Your task to perform on an android device: Open calendar and show me the third week of next month Image 0: 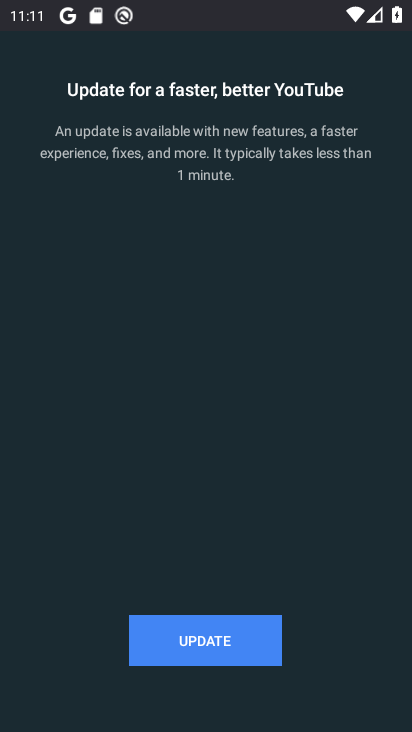
Step 0: press back button
Your task to perform on an android device: Open calendar and show me the third week of next month Image 1: 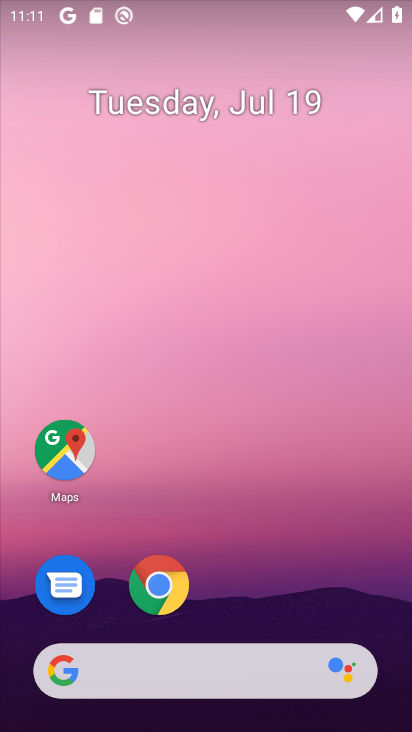
Step 1: drag from (179, 559) to (317, 111)
Your task to perform on an android device: Open calendar and show me the third week of next month Image 2: 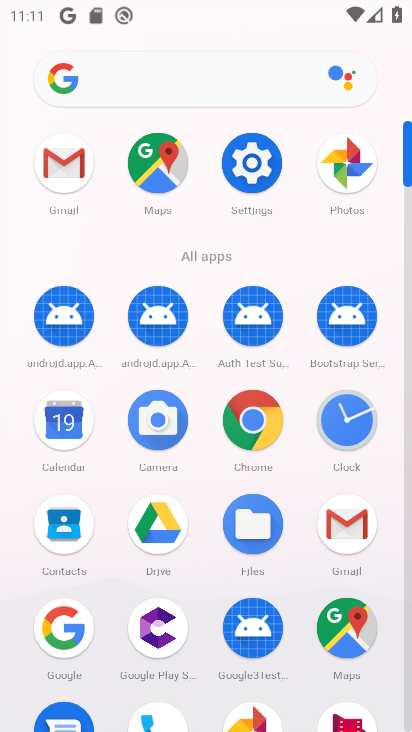
Step 2: click (71, 424)
Your task to perform on an android device: Open calendar and show me the third week of next month Image 3: 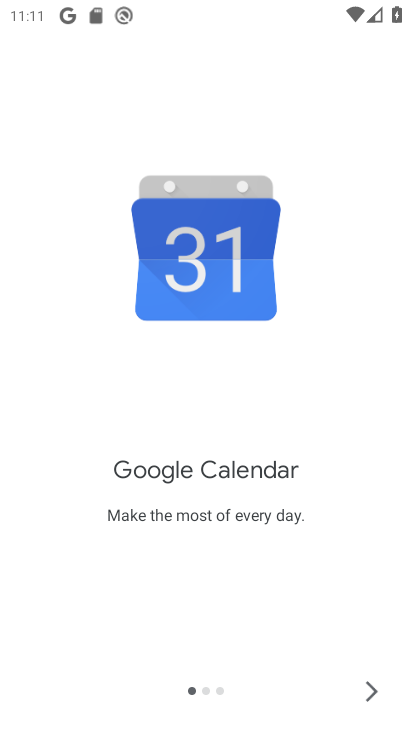
Step 3: click (369, 696)
Your task to perform on an android device: Open calendar and show me the third week of next month Image 4: 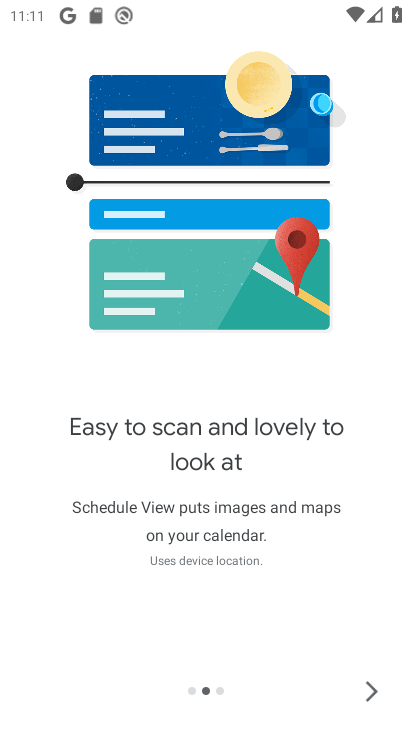
Step 4: click (367, 682)
Your task to perform on an android device: Open calendar and show me the third week of next month Image 5: 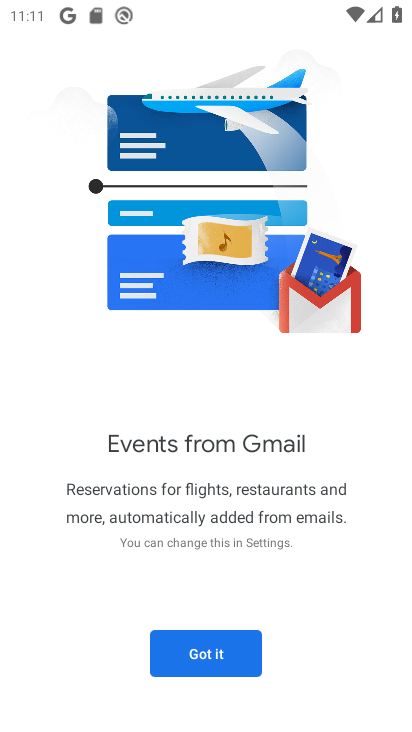
Step 5: click (217, 655)
Your task to perform on an android device: Open calendar and show me the third week of next month Image 6: 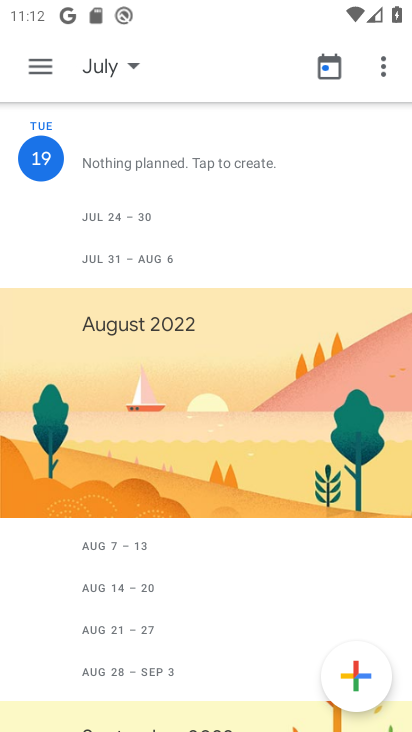
Step 6: click (104, 62)
Your task to perform on an android device: Open calendar and show me the third week of next month Image 7: 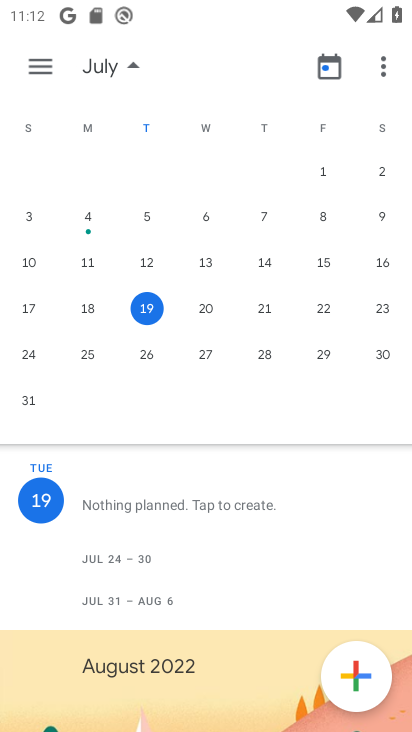
Step 7: click (39, 266)
Your task to perform on an android device: Open calendar and show me the third week of next month Image 8: 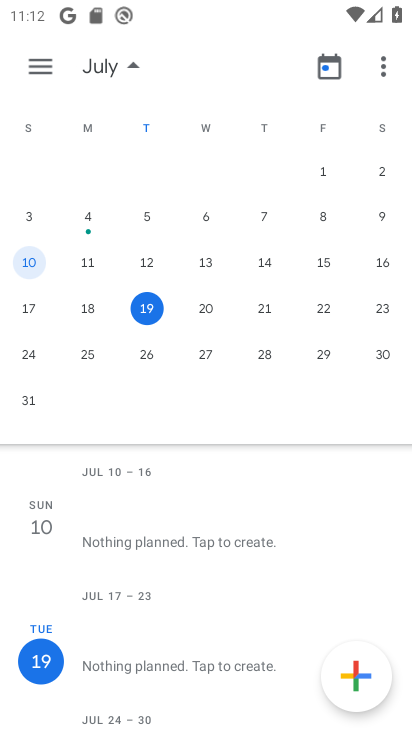
Step 8: drag from (340, 289) to (85, 283)
Your task to perform on an android device: Open calendar and show me the third week of next month Image 9: 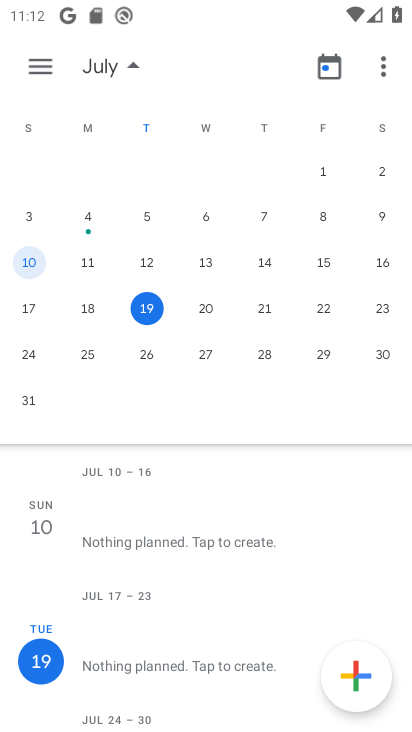
Step 9: drag from (329, 225) to (91, 234)
Your task to perform on an android device: Open calendar and show me the third week of next month Image 10: 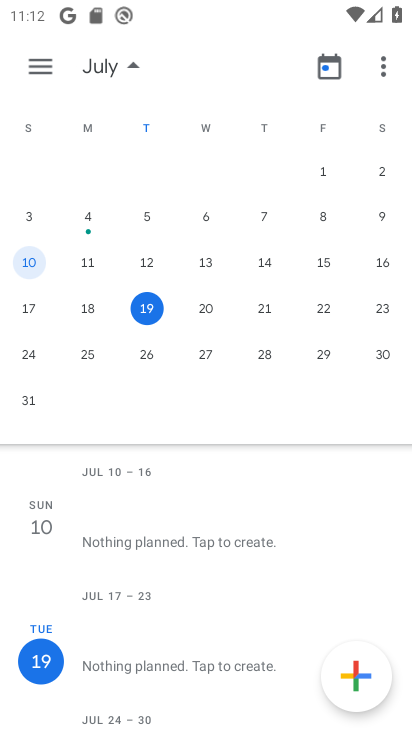
Step 10: drag from (325, 263) to (8, 293)
Your task to perform on an android device: Open calendar and show me the third week of next month Image 11: 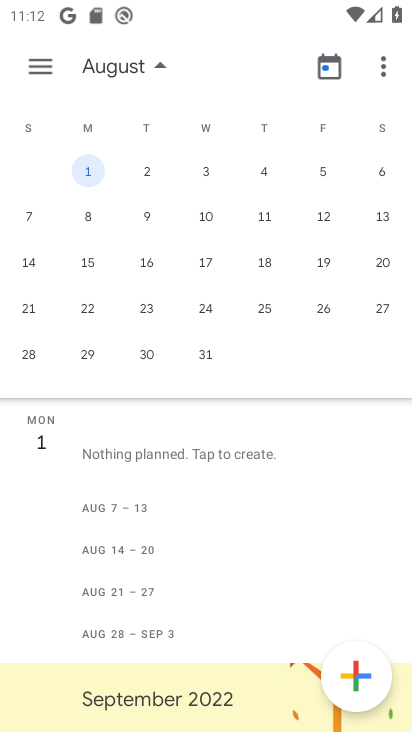
Step 11: click (22, 264)
Your task to perform on an android device: Open calendar and show me the third week of next month Image 12: 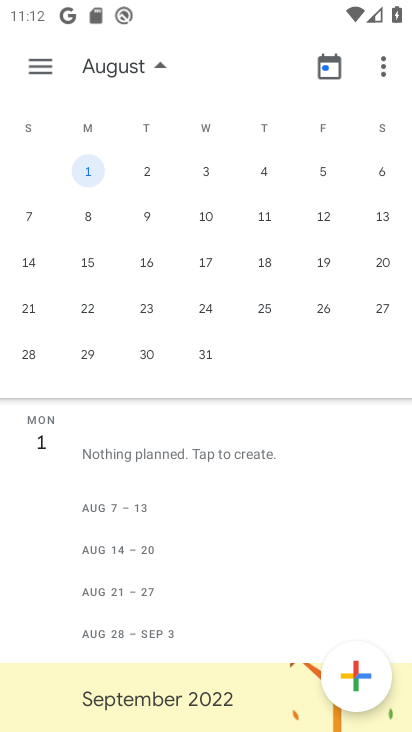
Step 12: click (28, 255)
Your task to perform on an android device: Open calendar and show me the third week of next month Image 13: 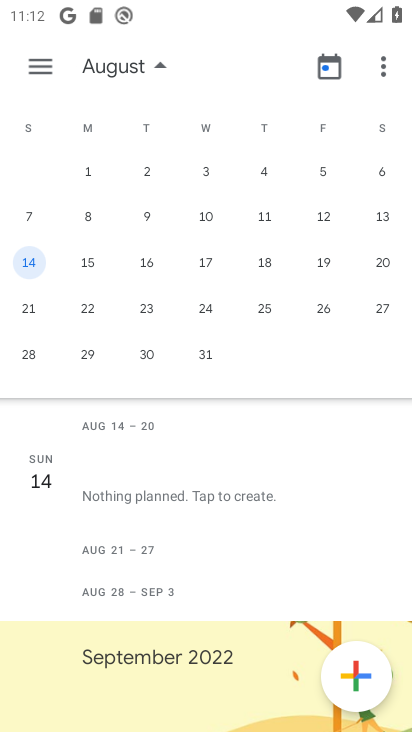
Step 13: click (34, 65)
Your task to perform on an android device: Open calendar and show me the third week of next month Image 14: 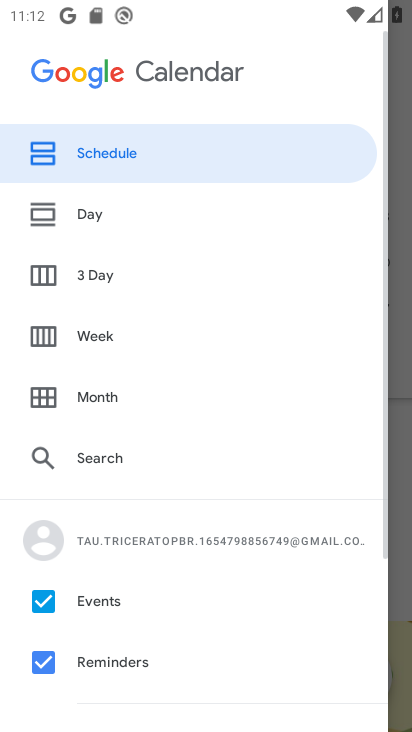
Step 14: click (109, 329)
Your task to perform on an android device: Open calendar and show me the third week of next month Image 15: 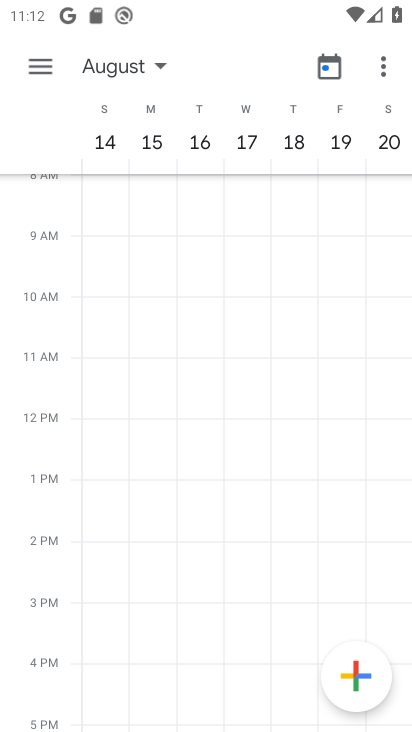
Step 15: task complete